Your task to perform on an android device: turn notification dots off Image 0: 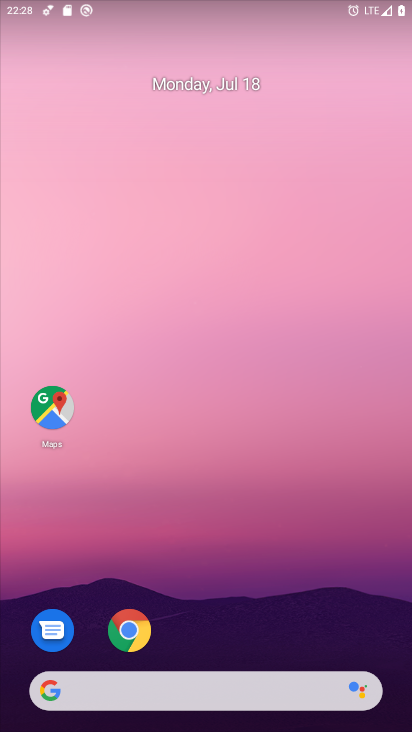
Step 0: drag from (178, 561) to (179, 145)
Your task to perform on an android device: turn notification dots off Image 1: 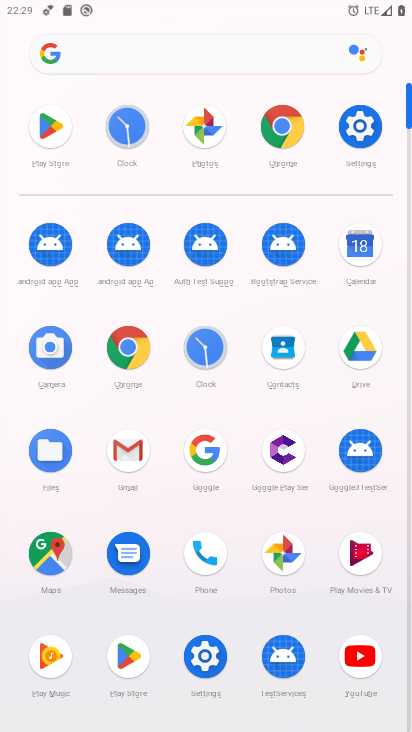
Step 1: click (215, 656)
Your task to perform on an android device: turn notification dots off Image 2: 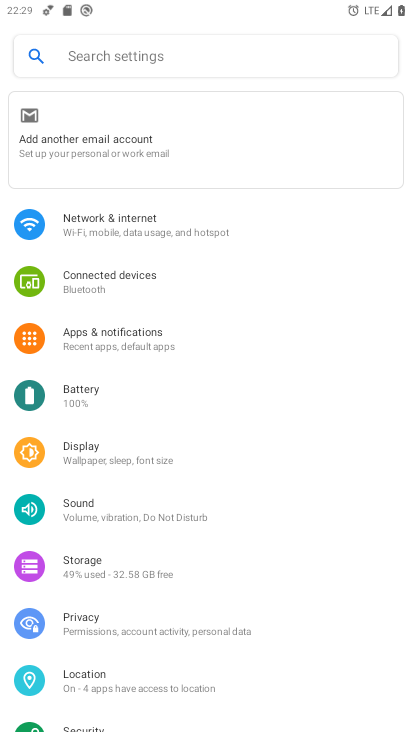
Step 2: click (228, 50)
Your task to perform on an android device: turn notification dots off Image 3: 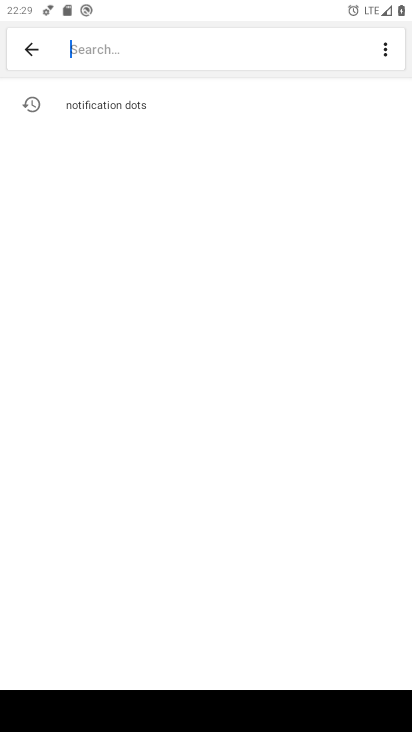
Step 3: click (143, 109)
Your task to perform on an android device: turn notification dots off Image 4: 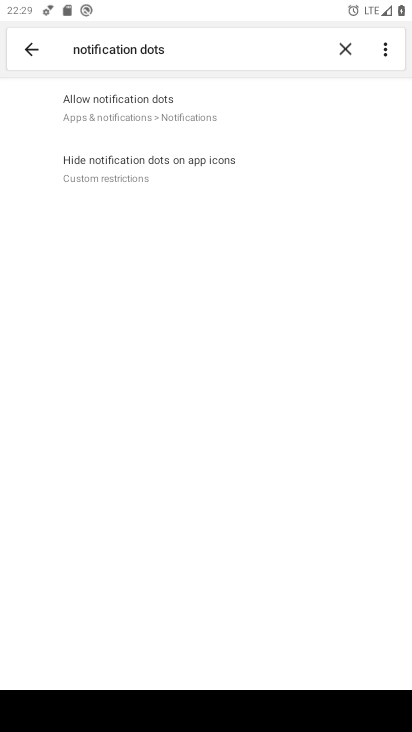
Step 4: click (127, 107)
Your task to perform on an android device: turn notification dots off Image 5: 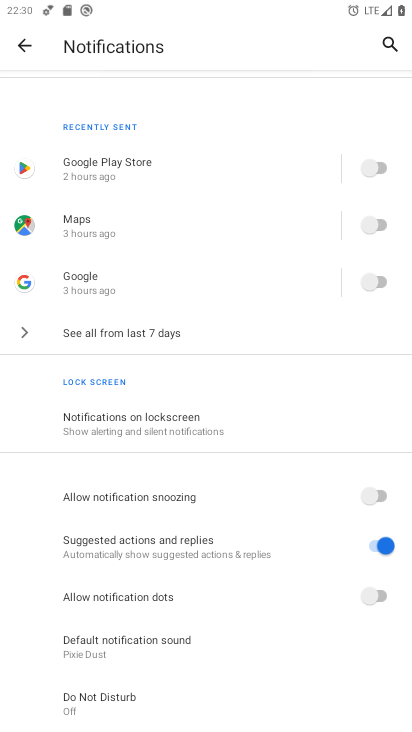
Step 5: task complete